Your task to perform on an android device: Open location settings Image 0: 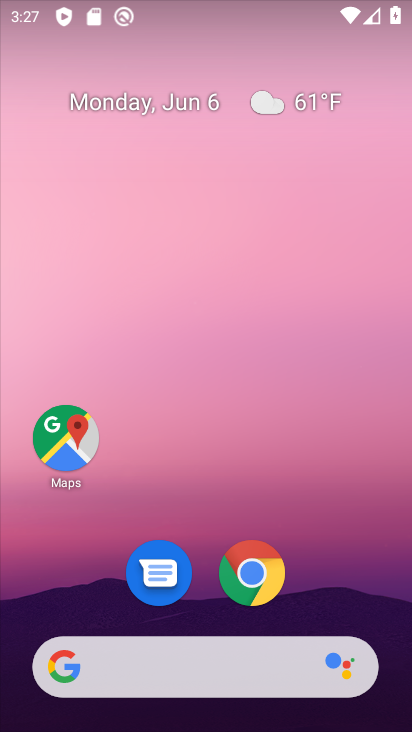
Step 0: click (135, 198)
Your task to perform on an android device: Open location settings Image 1: 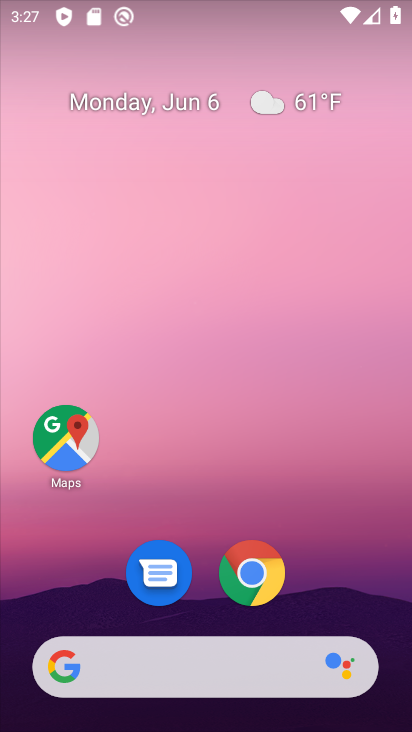
Step 1: drag from (223, 654) to (196, 175)
Your task to perform on an android device: Open location settings Image 2: 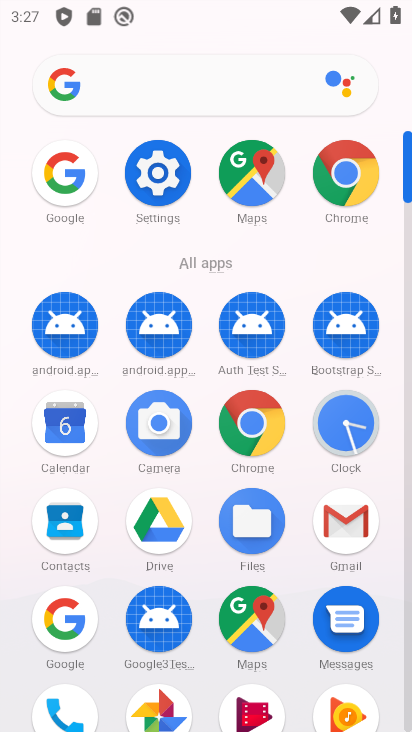
Step 2: click (162, 185)
Your task to perform on an android device: Open location settings Image 3: 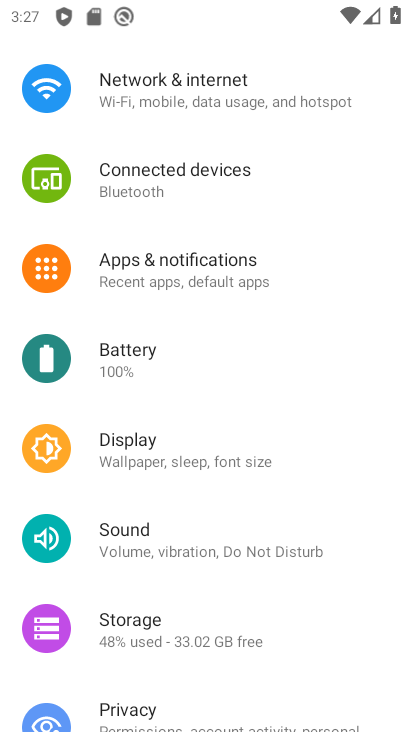
Step 3: drag from (140, 707) to (129, 306)
Your task to perform on an android device: Open location settings Image 4: 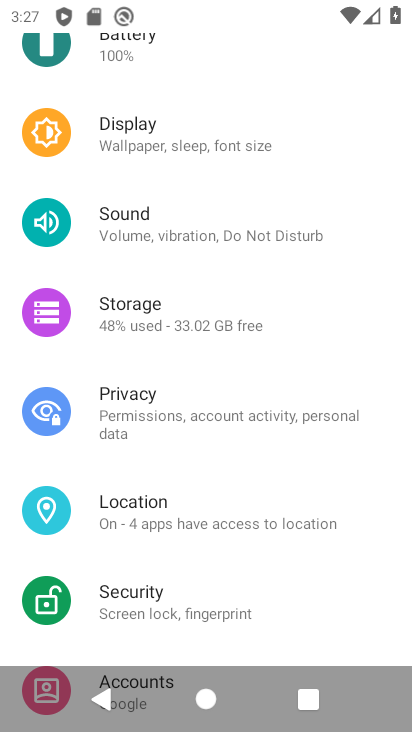
Step 4: click (143, 515)
Your task to perform on an android device: Open location settings Image 5: 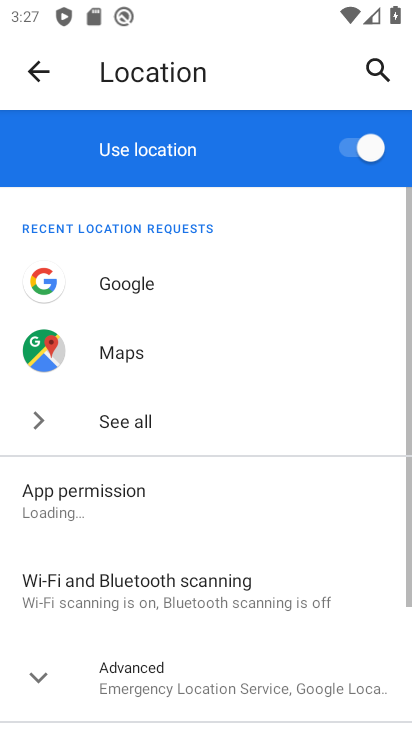
Step 5: drag from (255, 639) to (213, 321)
Your task to perform on an android device: Open location settings Image 6: 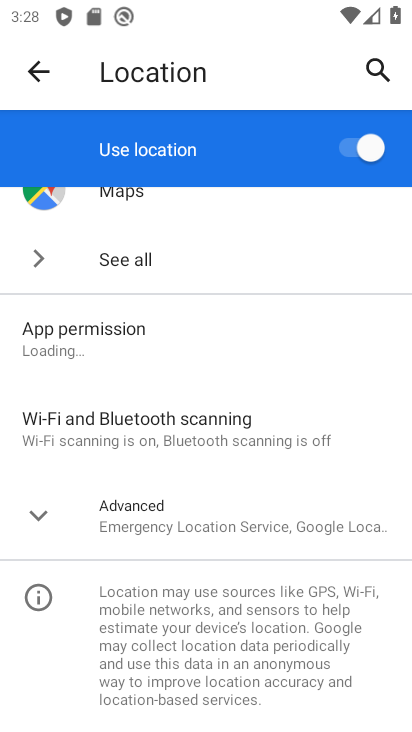
Step 6: click (137, 521)
Your task to perform on an android device: Open location settings Image 7: 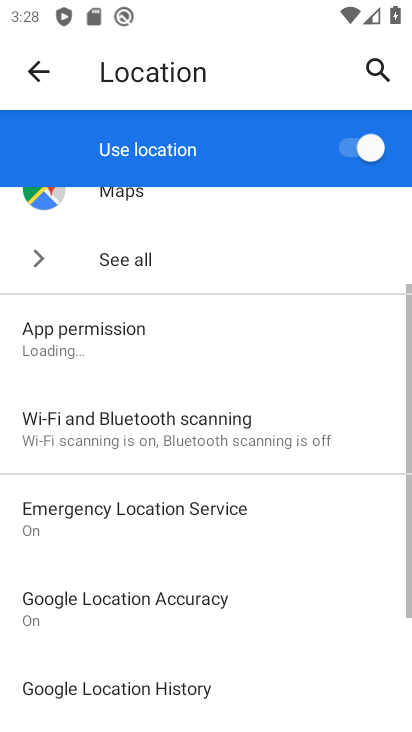
Step 7: task complete